Your task to perform on an android device: Search for the best rated kitchen reno kits on Lowes.com Image 0: 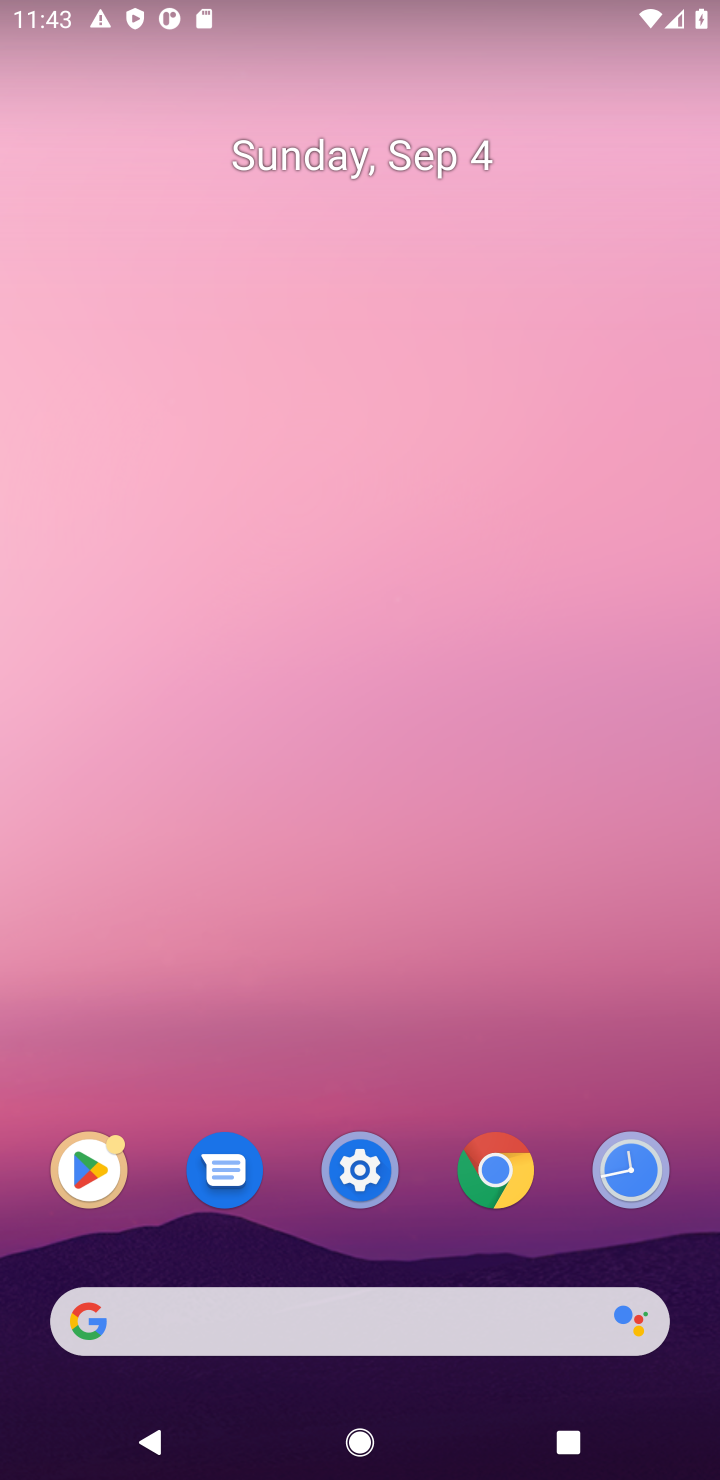
Step 0: click (470, 1311)
Your task to perform on an android device: Search for the best rated kitchen reno kits on Lowes.com Image 1: 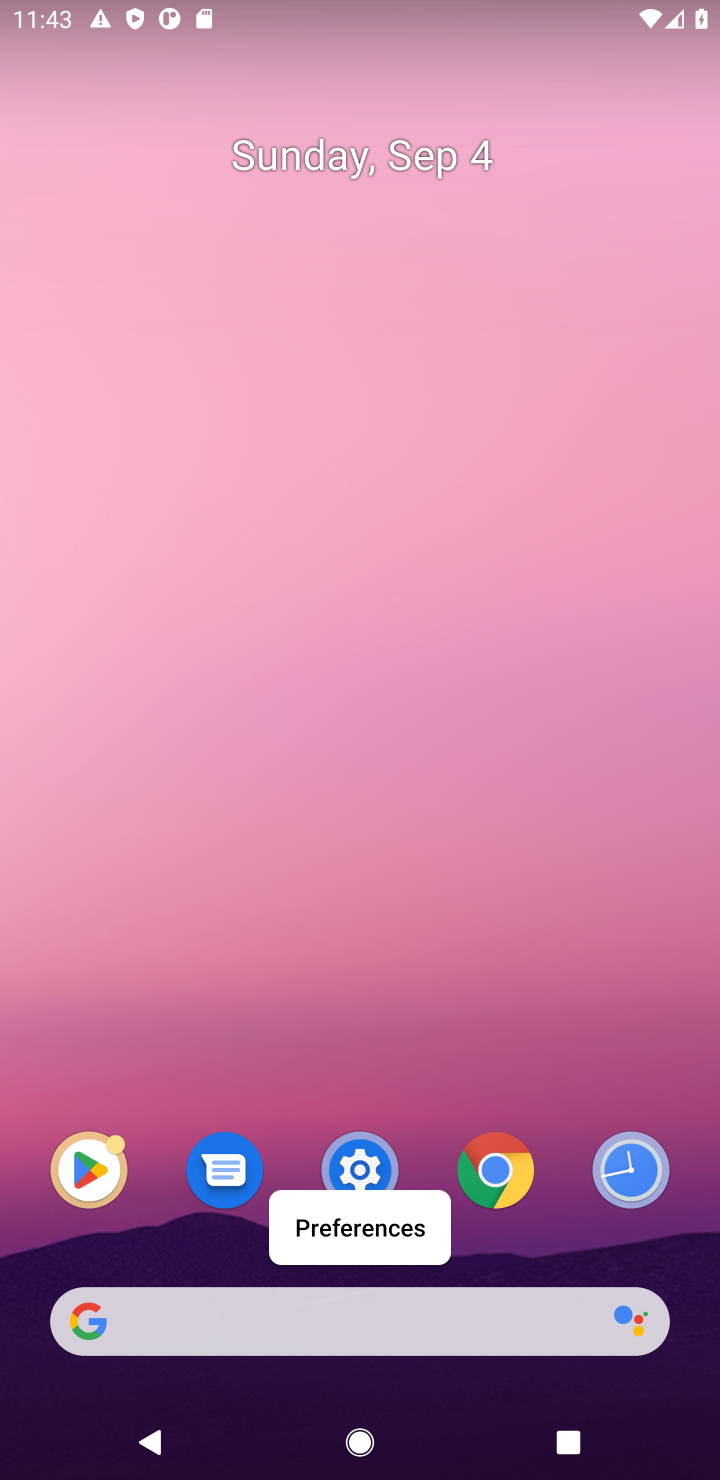
Step 1: click (383, 1344)
Your task to perform on an android device: Search for the best rated kitchen reno kits on Lowes.com Image 2: 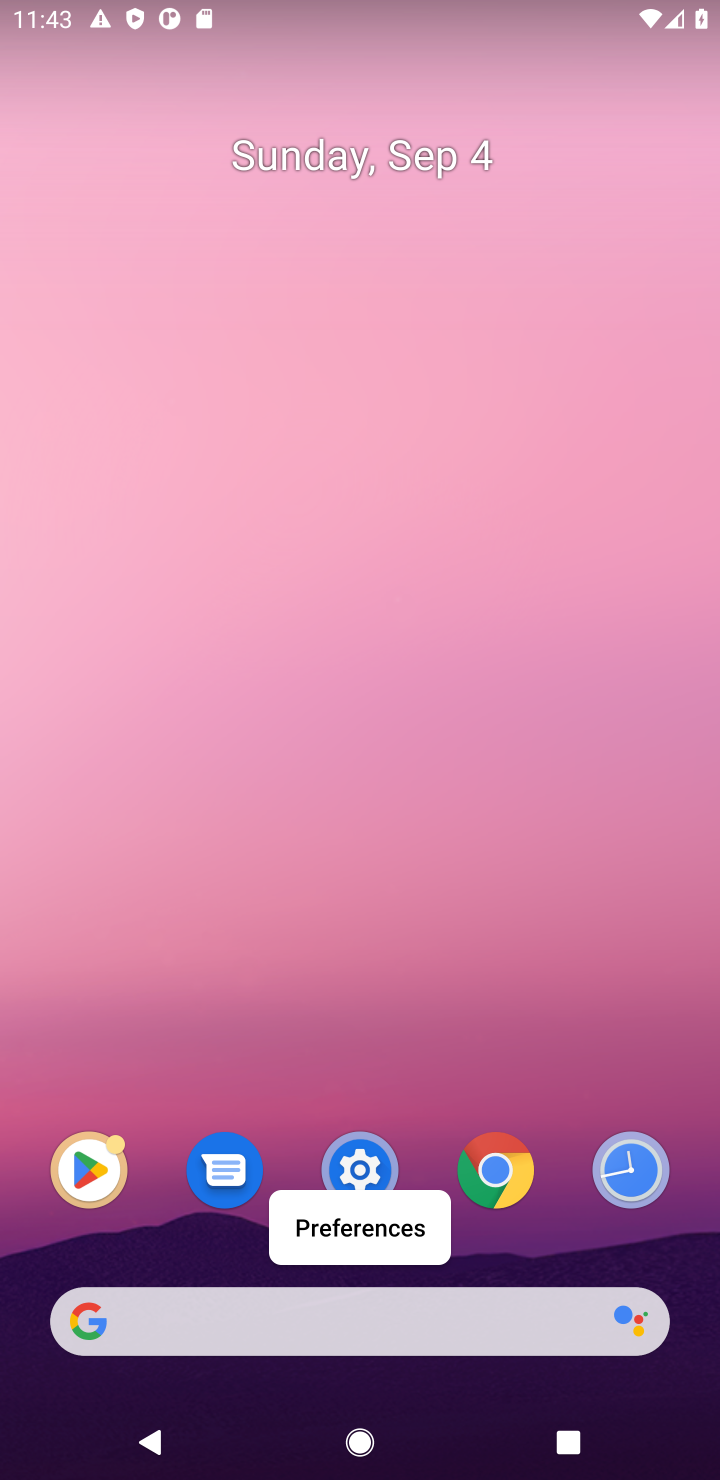
Step 2: click (378, 1328)
Your task to perform on an android device: Search for the best rated kitchen reno kits on Lowes.com Image 3: 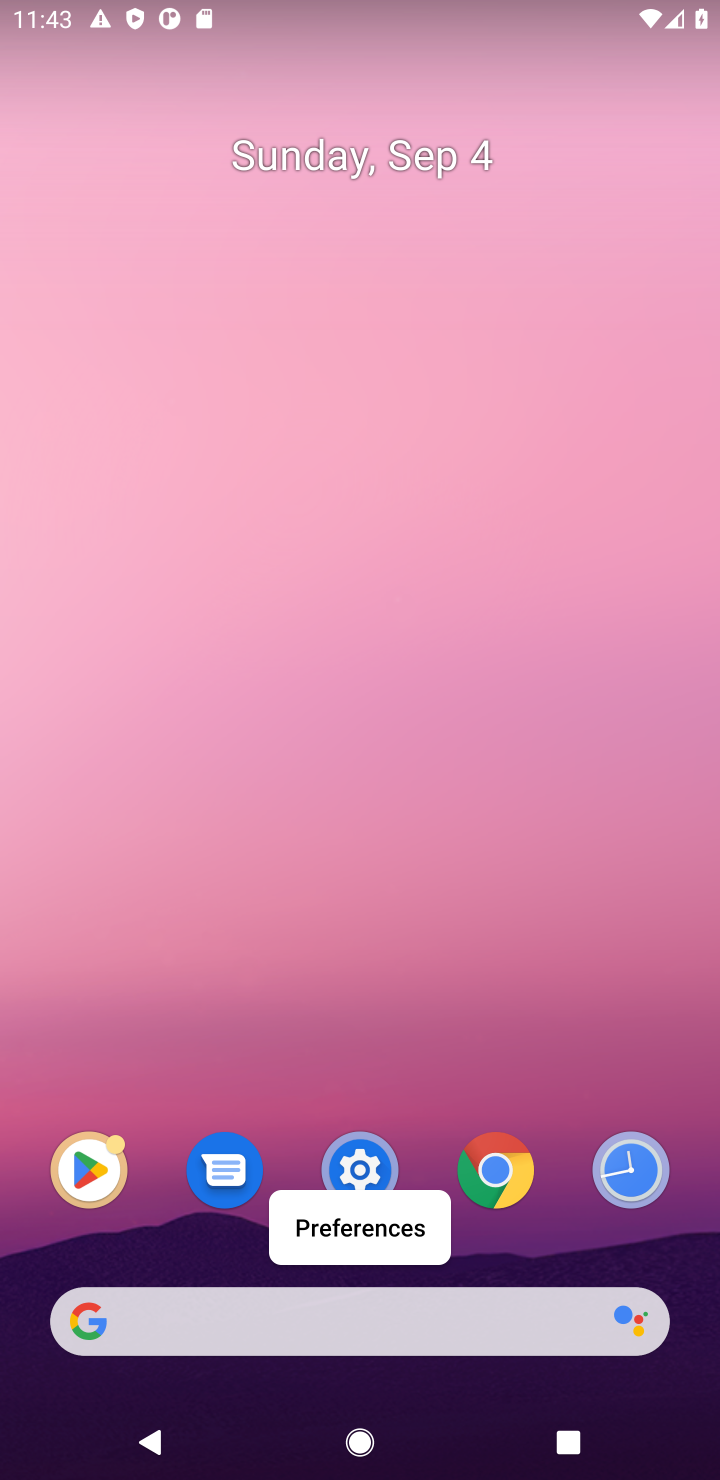
Step 3: click (343, 1330)
Your task to perform on an android device: Search for the best rated kitchen reno kits on Lowes.com Image 4: 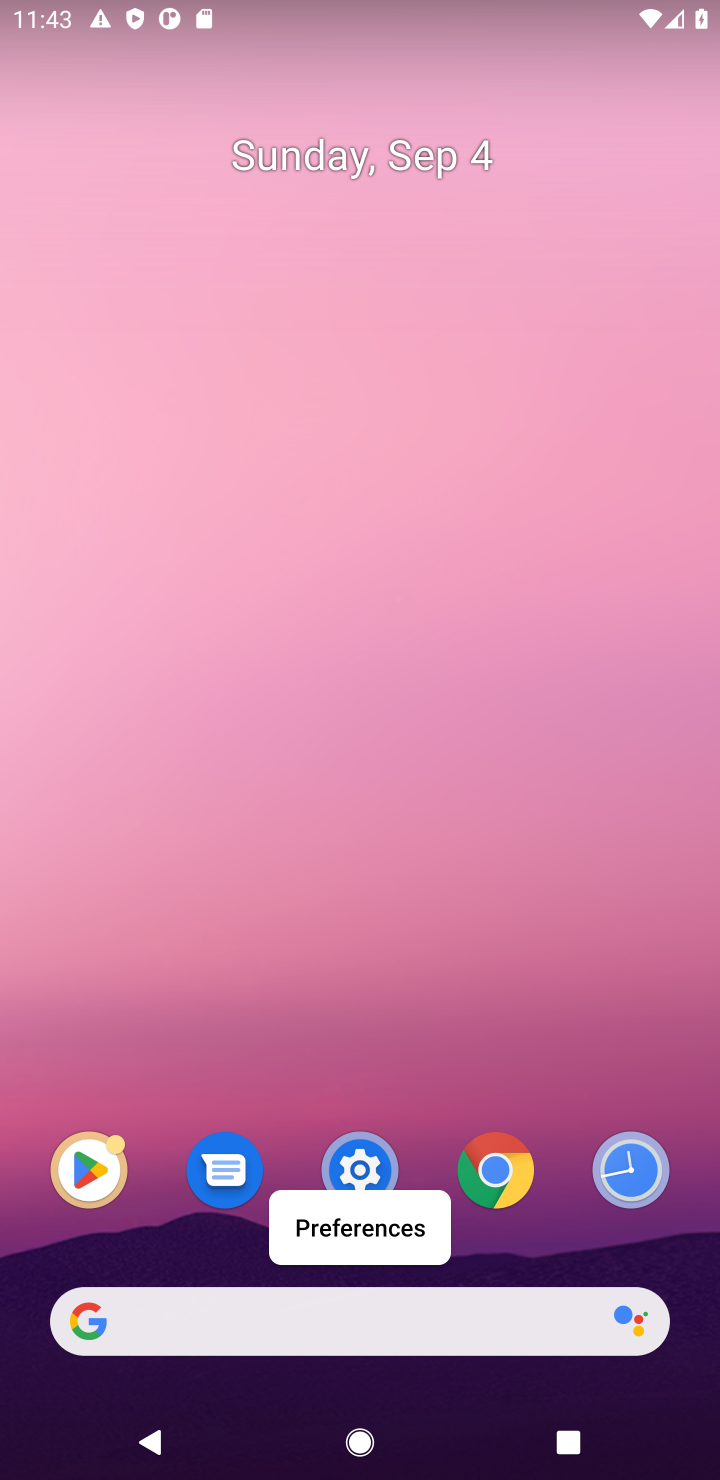
Step 4: click (343, 1330)
Your task to perform on an android device: Search for the best rated kitchen reno kits on Lowes.com Image 5: 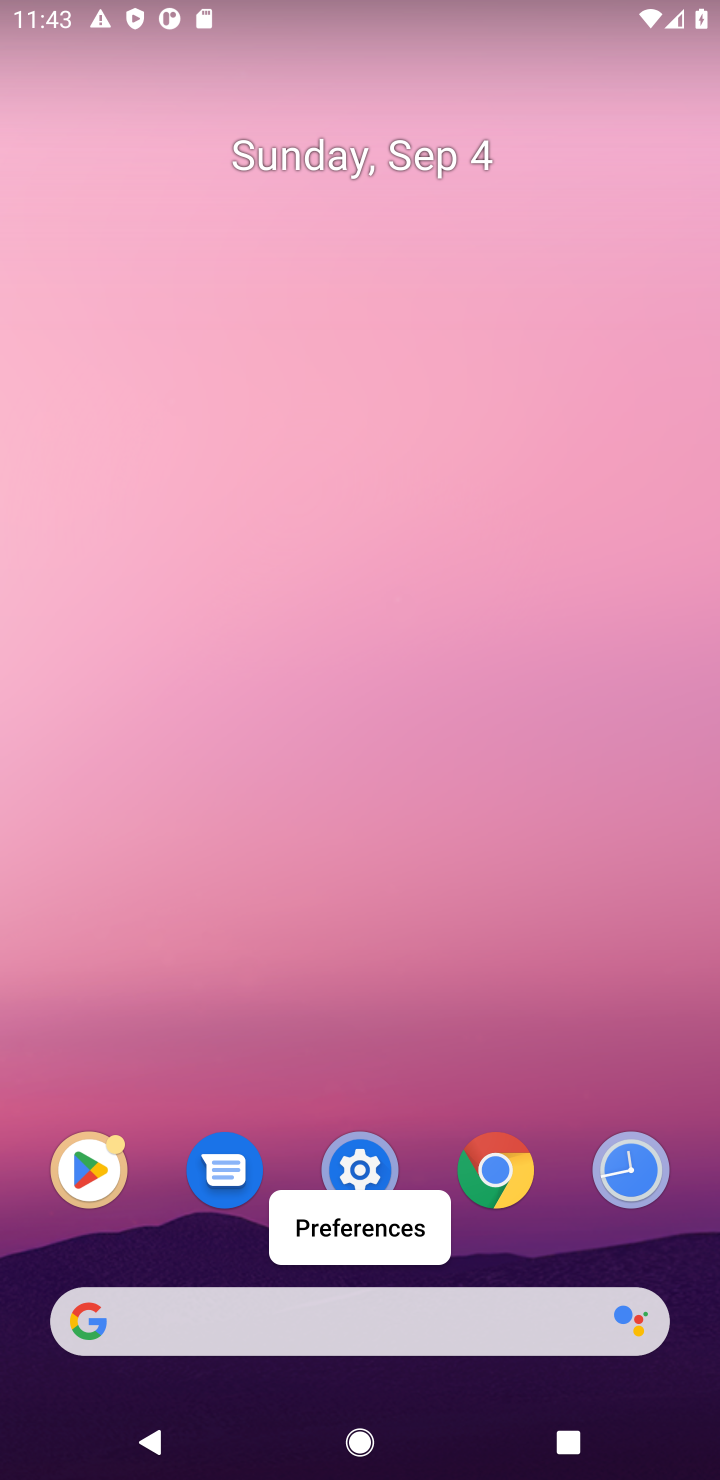
Step 5: click (280, 1329)
Your task to perform on an android device: Search for the best rated kitchen reno kits on Lowes.com Image 6: 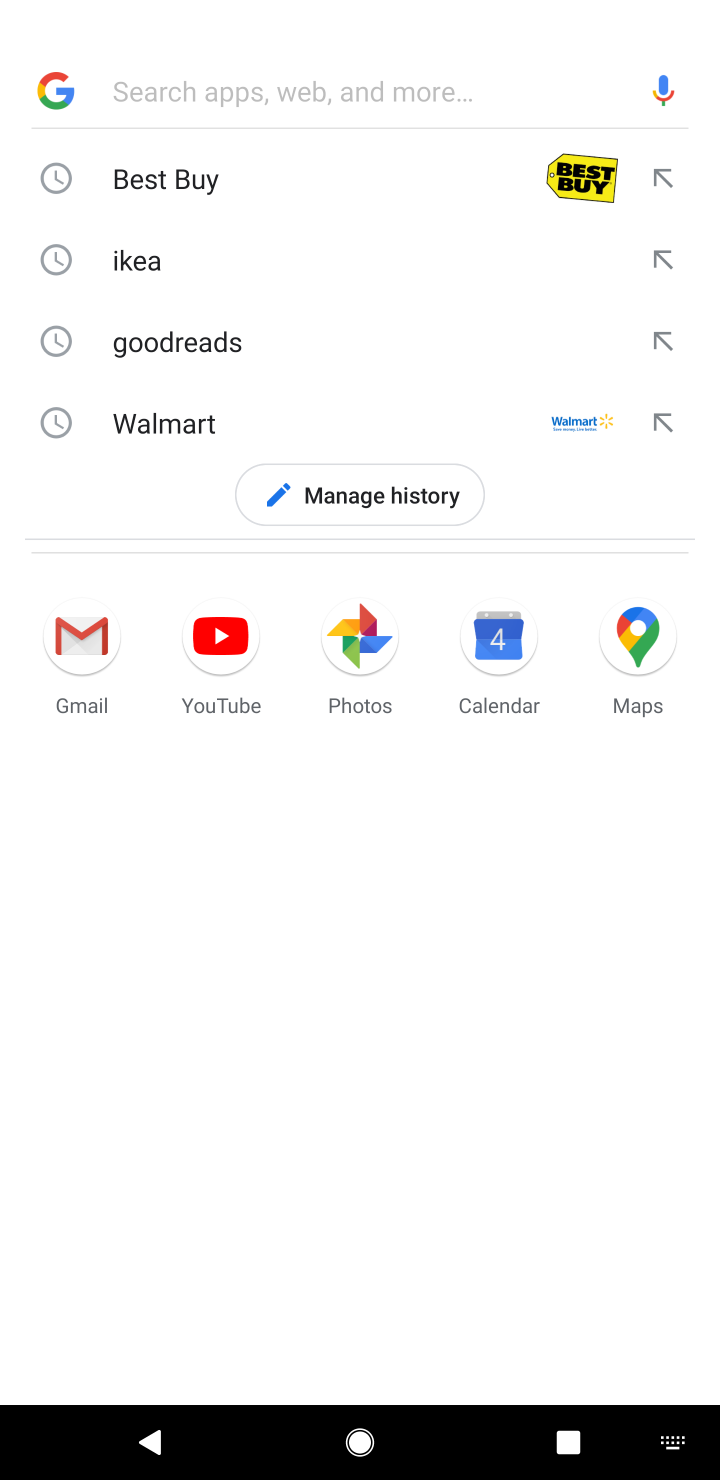
Step 6: type "Lowes.com"
Your task to perform on an android device: Search for the best rated kitchen reno kits on Lowes.com Image 7: 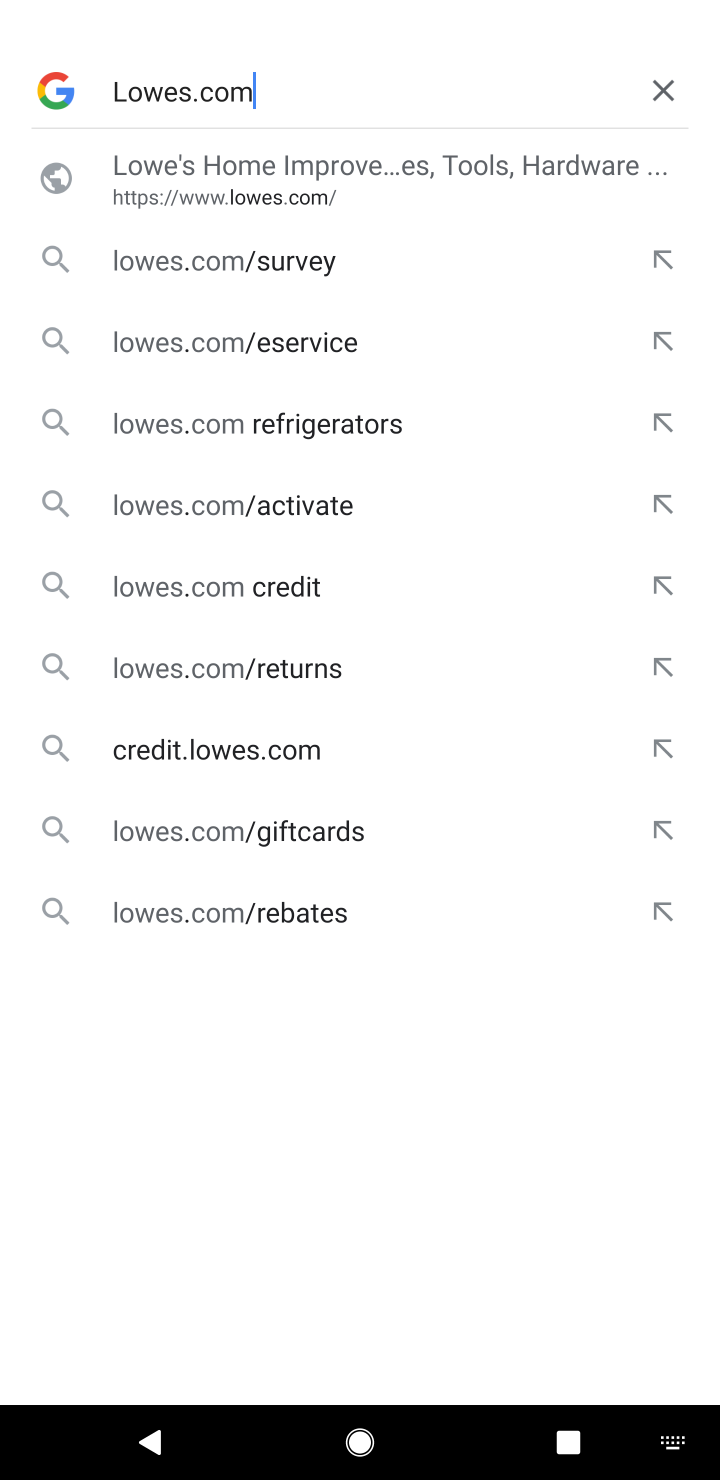
Step 7: click (336, 216)
Your task to perform on an android device: Search for the best rated kitchen reno kits on Lowes.com Image 8: 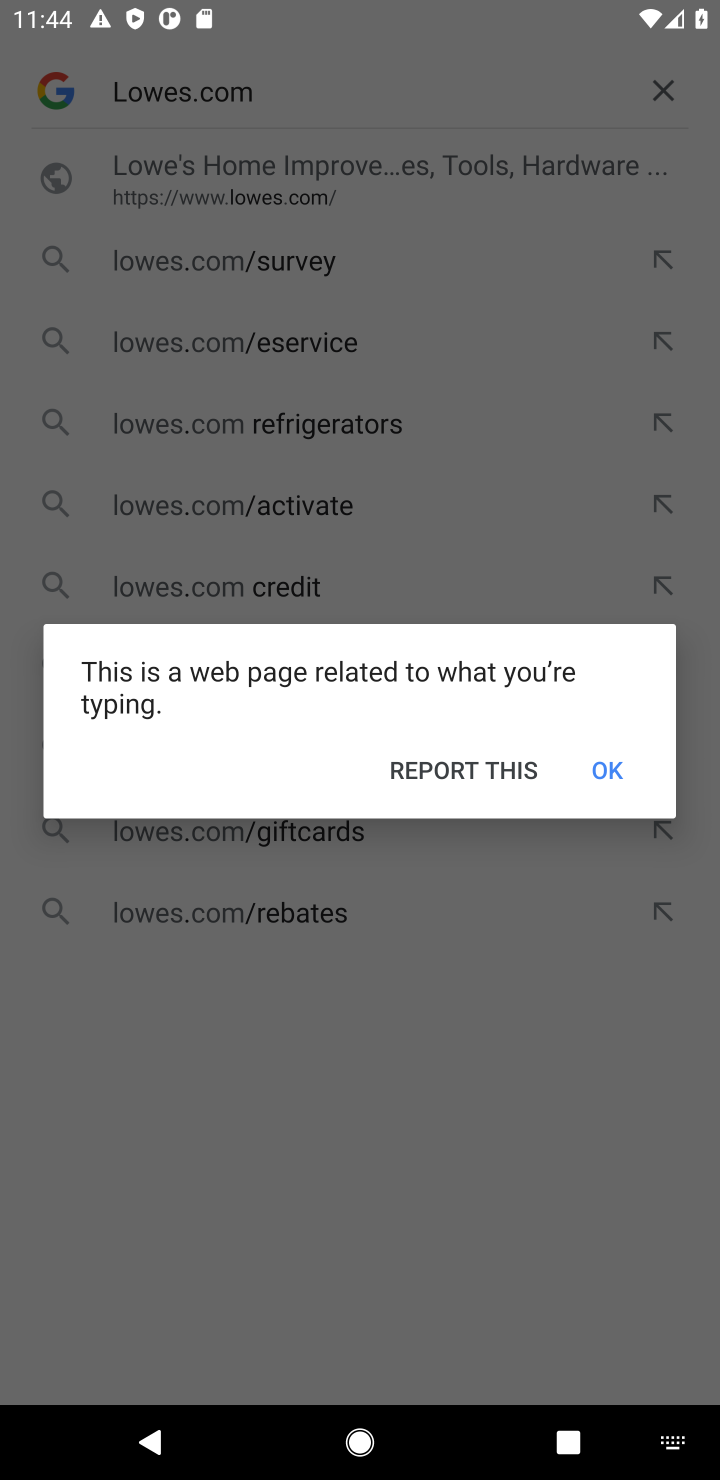
Step 8: click (598, 749)
Your task to perform on an android device: Search for the best rated kitchen reno kits on Lowes.com Image 9: 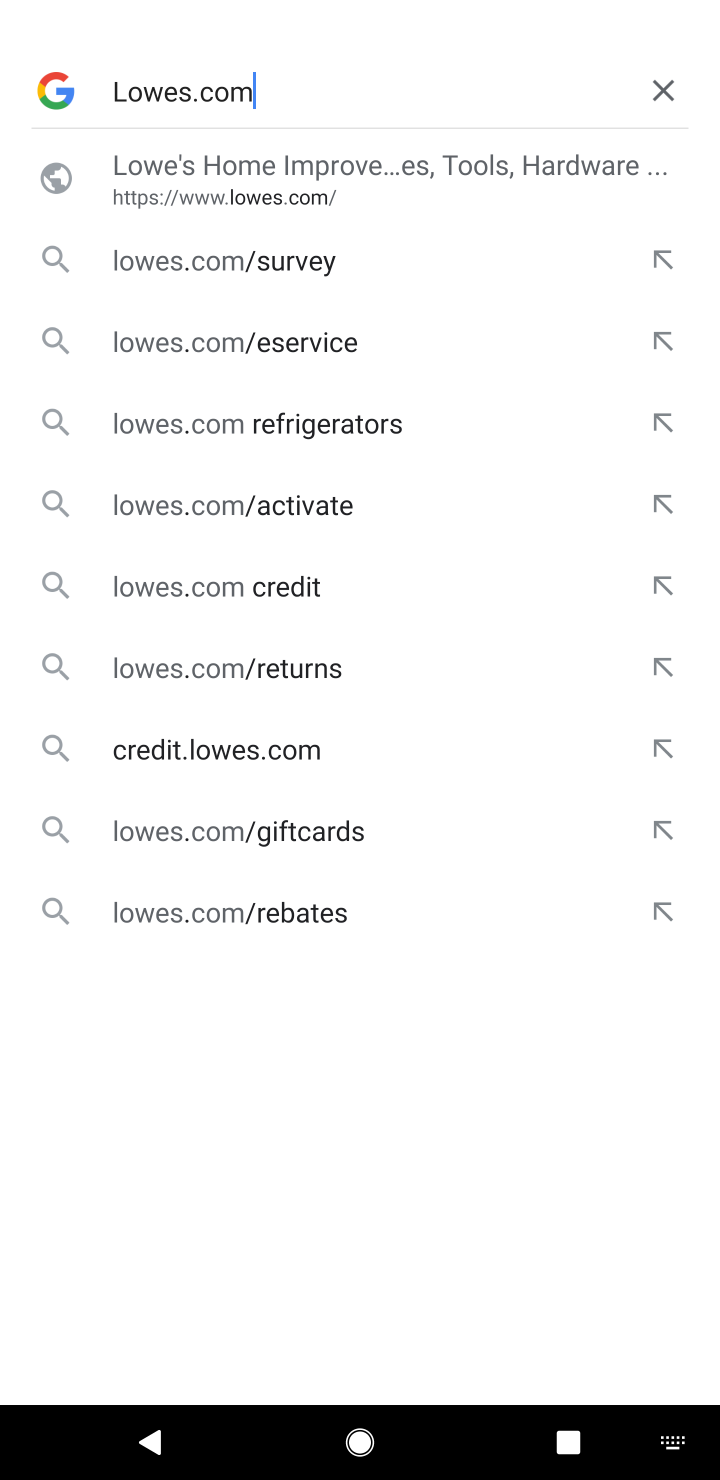
Step 9: click (379, 212)
Your task to perform on an android device: Search for the best rated kitchen reno kits on Lowes.com Image 10: 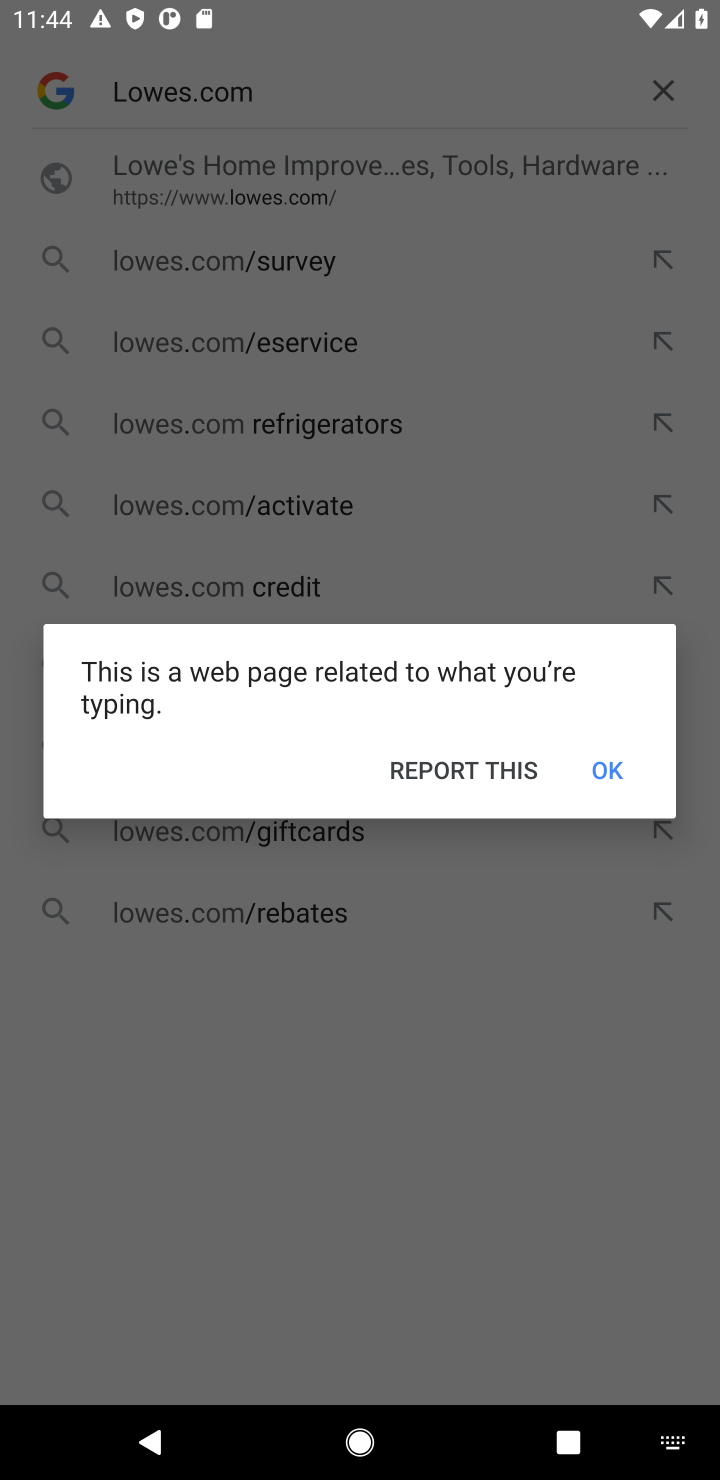
Step 10: click (599, 760)
Your task to perform on an android device: Search for the best rated kitchen reno kits on Lowes.com Image 11: 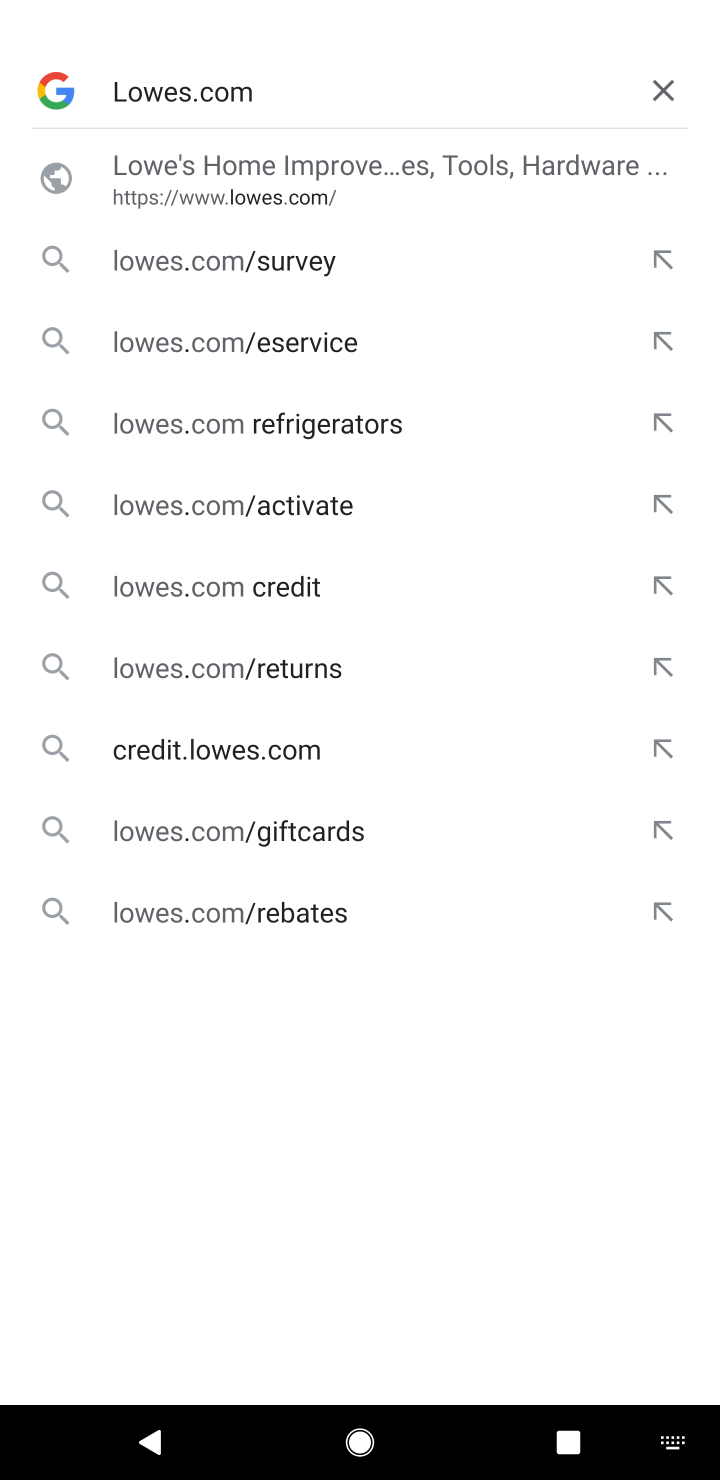
Step 11: click (302, 192)
Your task to perform on an android device: Search for the best rated kitchen reno kits on Lowes.com Image 12: 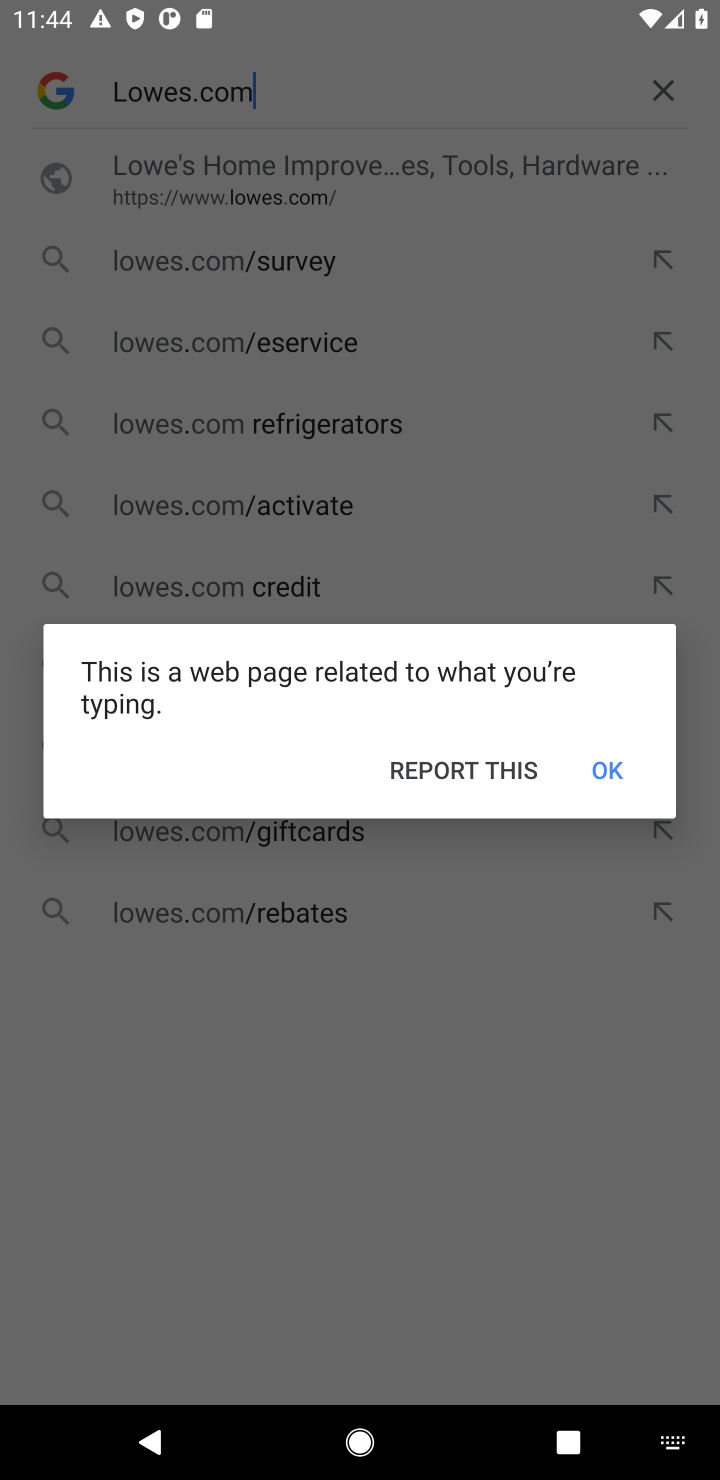
Step 12: click (300, 197)
Your task to perform on an android device: Search for the best rated kitchen reno kits on Lowes.com Image 13: 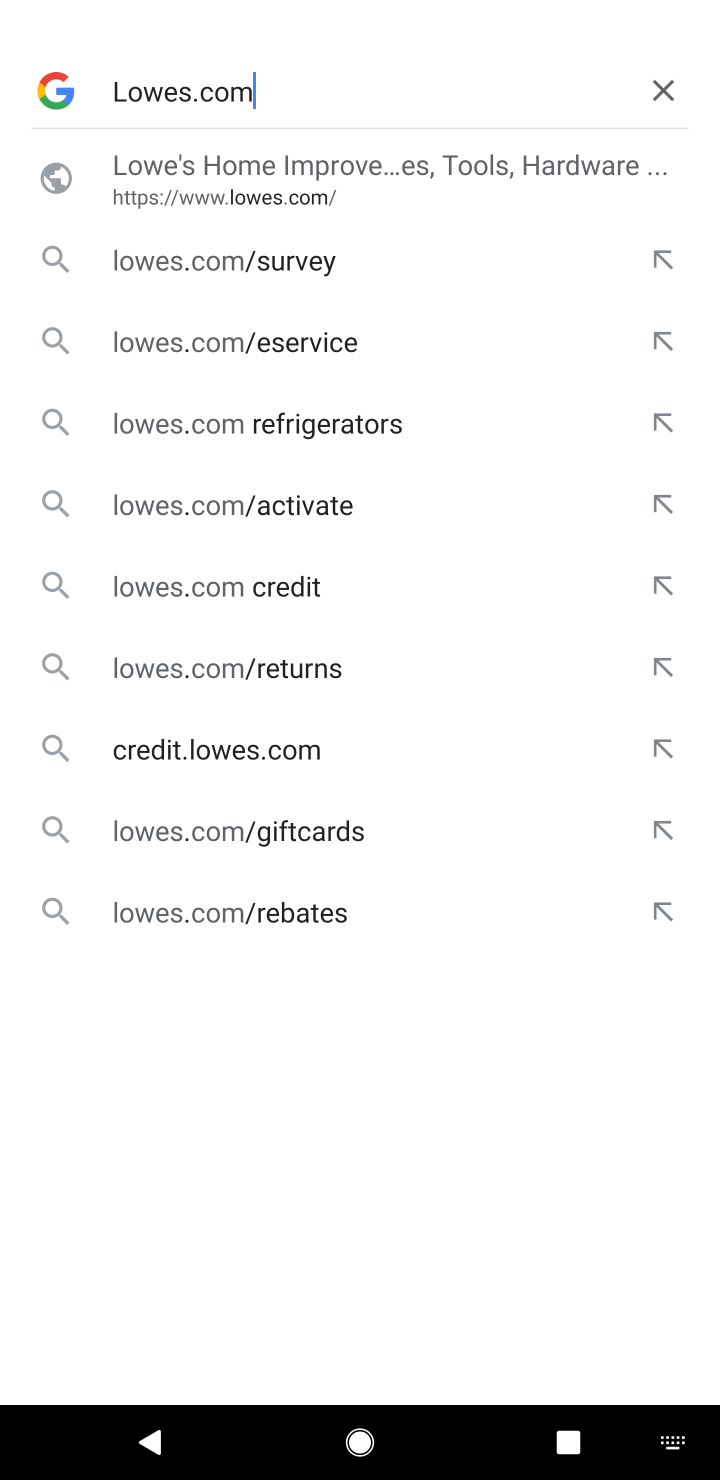
Step 13: click (242, 177)
Your task to perform on an android device: Search for the best rated kitchen reno kits on Lowes.com Image 14: 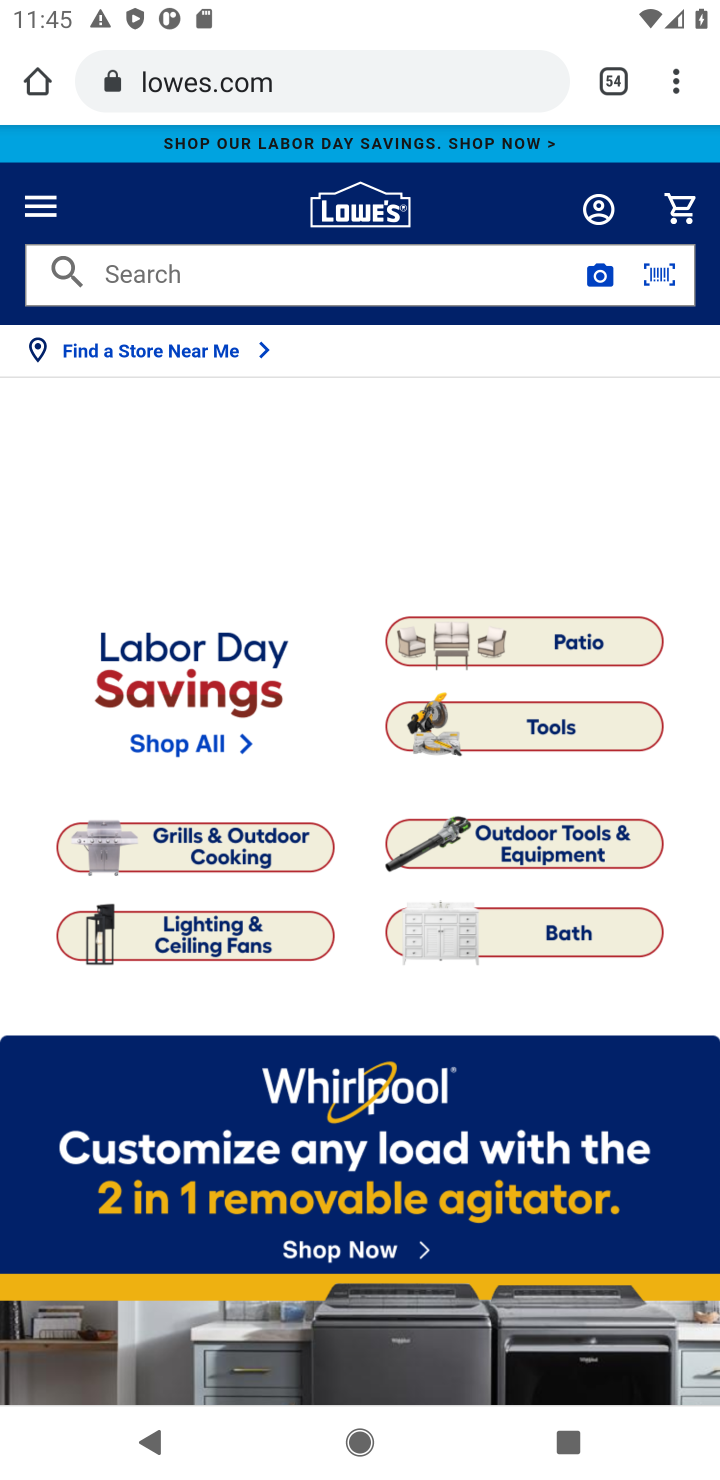
Step 14: click (298, 267)
Your task to perform on an android device: Search for the best rated kitchen reno kits on Lowes.com Image 15: 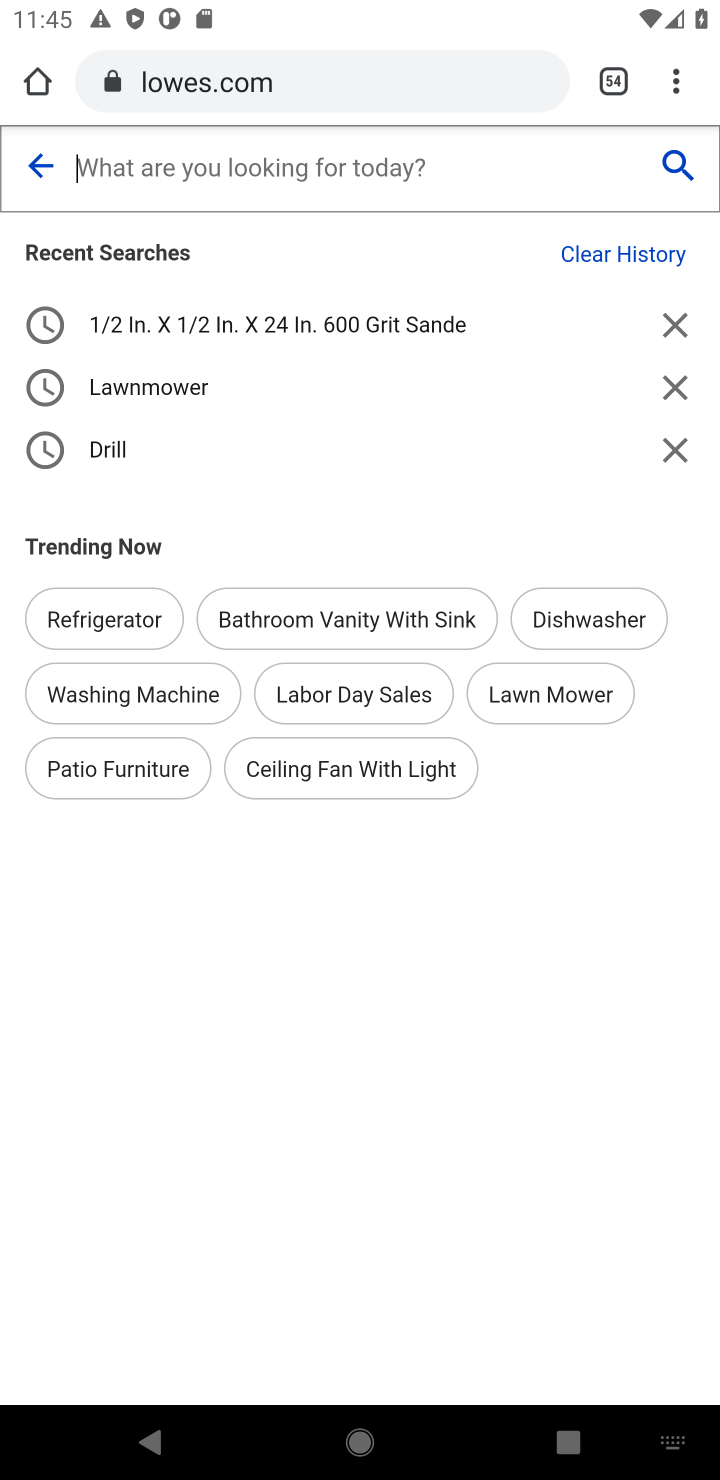
Step 15: type "kitchen reno kits"
Your task to perform on an android device: Search for the best rated kitchen reno kits on Lowes.com Image 16: 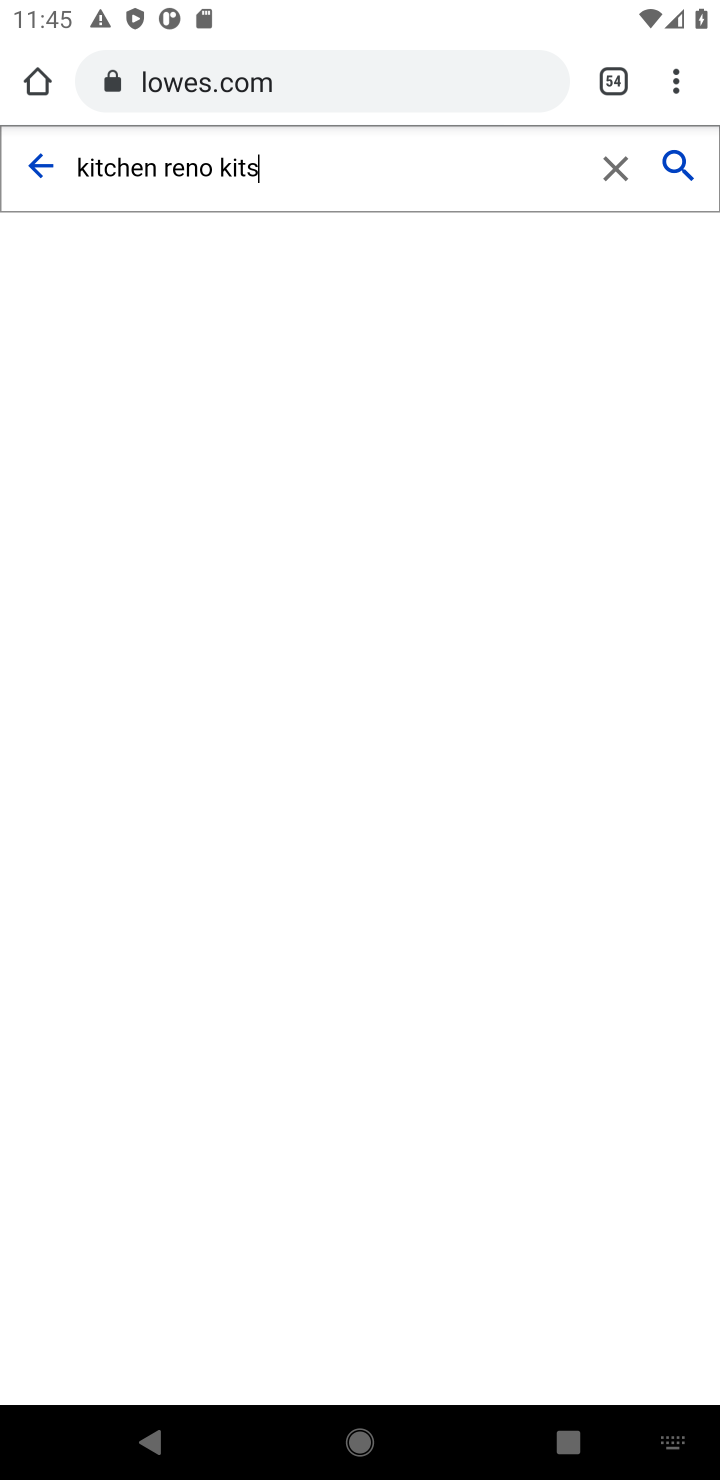
Step 16: click (670, 156)
Your task to perform on an android device: Search for the best rated kitchen reno kits on Lowes.com Image 17: 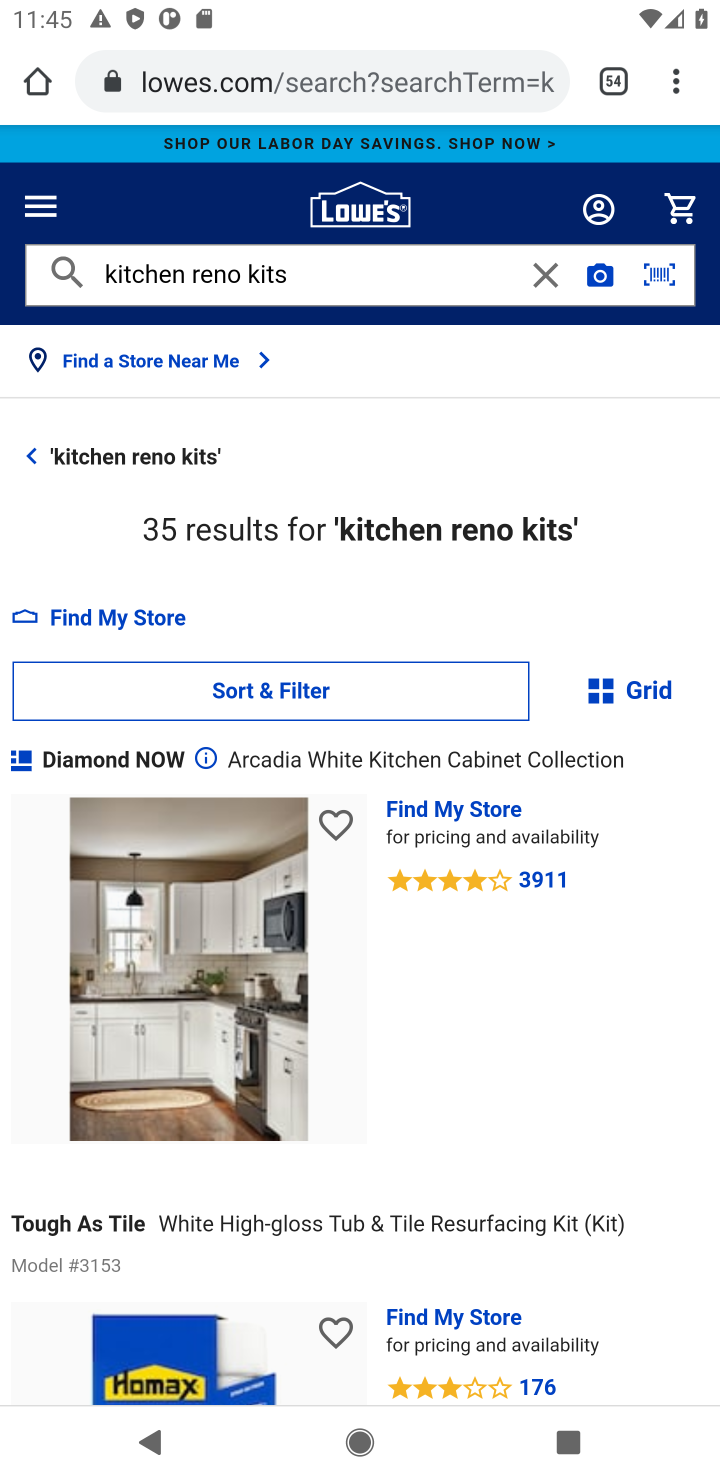
Step 17: task complete